Your task to perform on an android device: find photos in the google photos app Image 0: 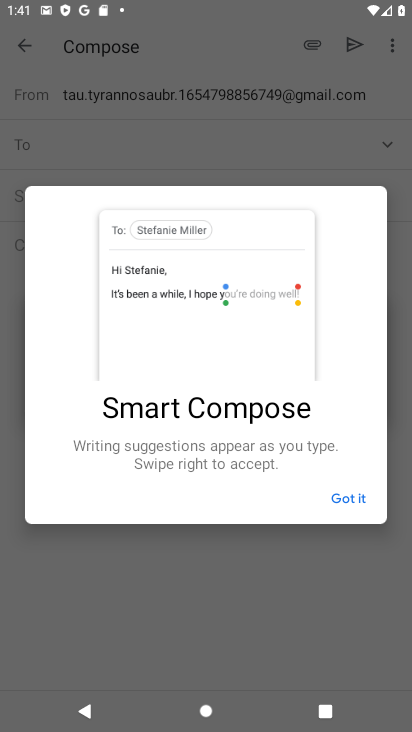
Step 0: press back button
Your task to perform on an android device: find photos in the google photos app Image 1: 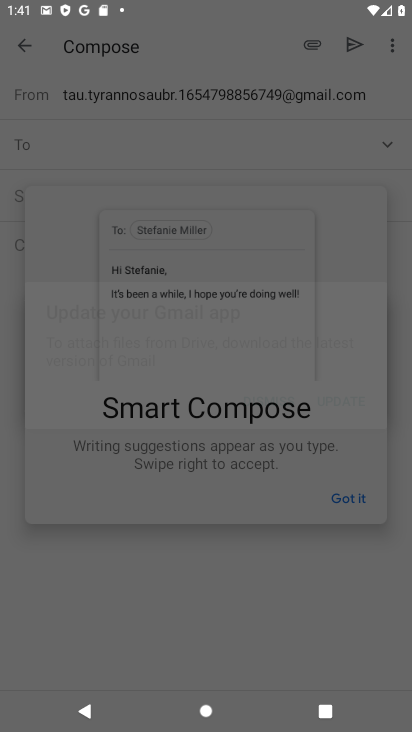
Step 1: press back button
Your task to perform on an android device: find photos in the google photos app Image 2: 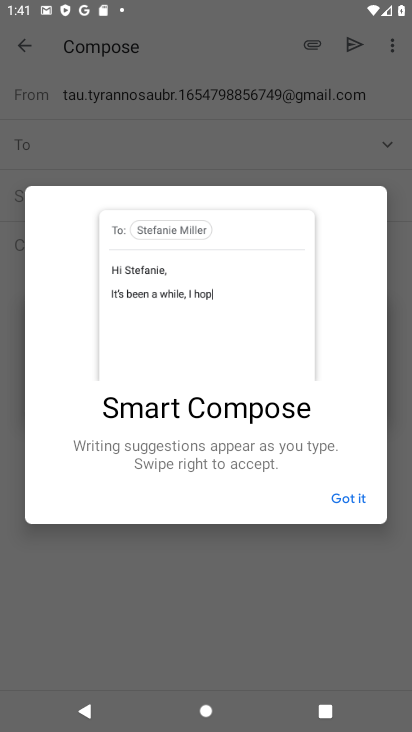
Step 2: press home button
Your task to perform on an android device: find photos in the google photos app Image 3: 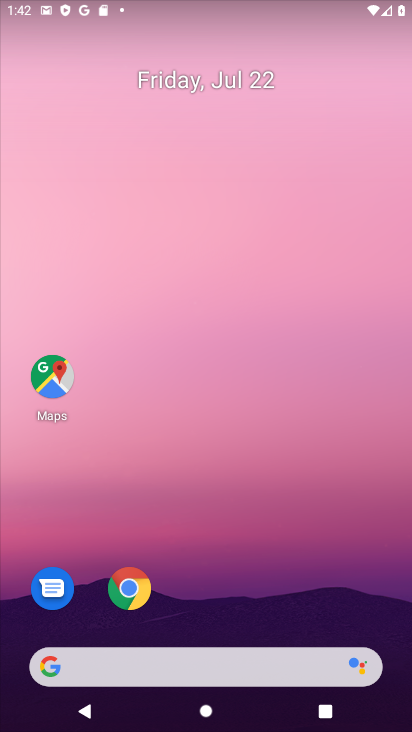
Step 3: drag from (224, 546) to (276, 23)
Your task to perform on an android device: find photos in the google photos app Image 4: 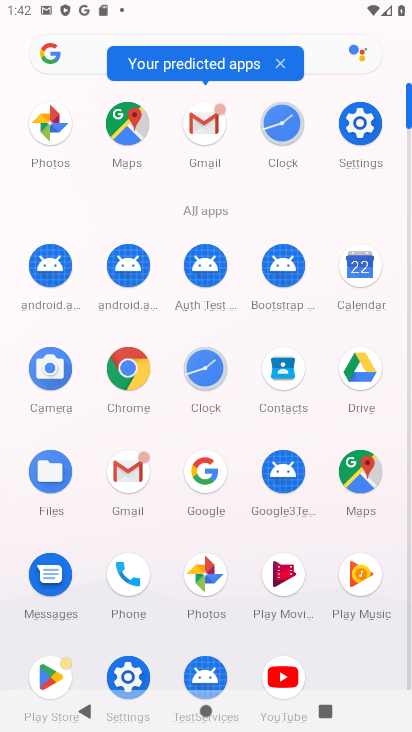
Step 4: click (201, 576)
Your task to perform on an android device: find photos in the google photos app Image 5: 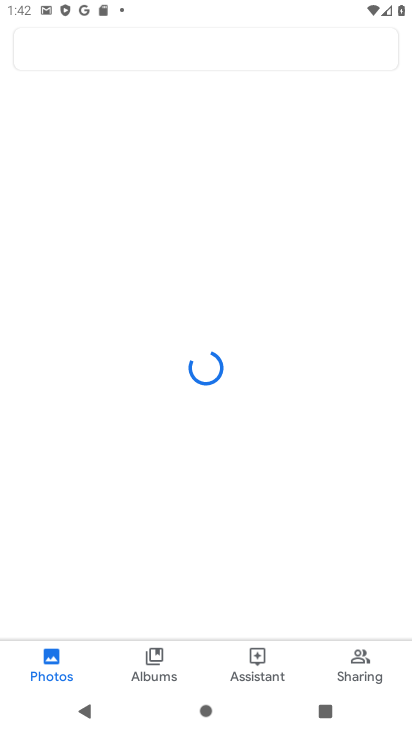
Step 5: click (61, 673)
Your task to perform on an android device: find photos in the google photos app Image 6: 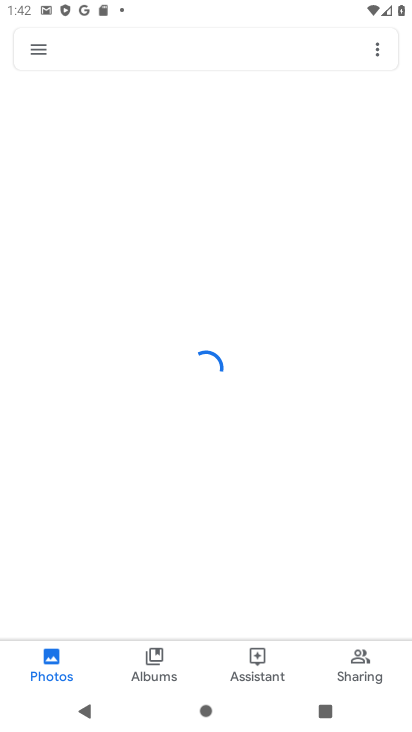
Step 6: task complete